Your task to perform on an android device: Open privacy settings Image 0: 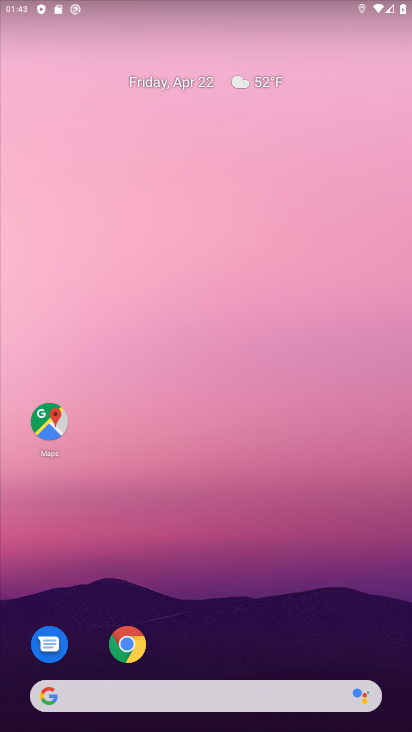
Step 0: click (131, 654)
Your task to perform on an android device: Open privacy settings Image 1: 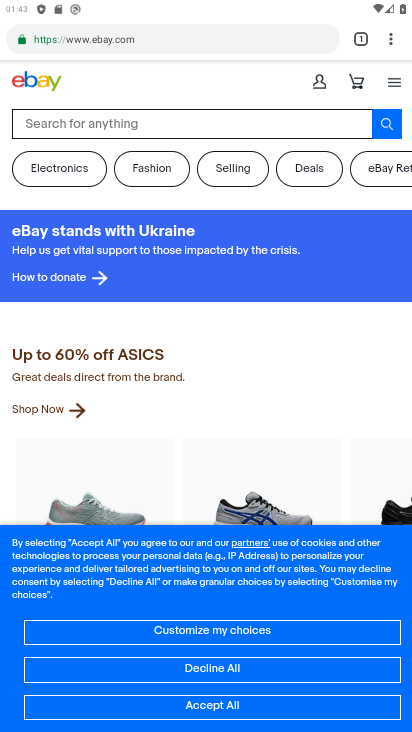
Step 1: click (390, 60)
Your task to perform on an android device: Open privacy settings Image 2: 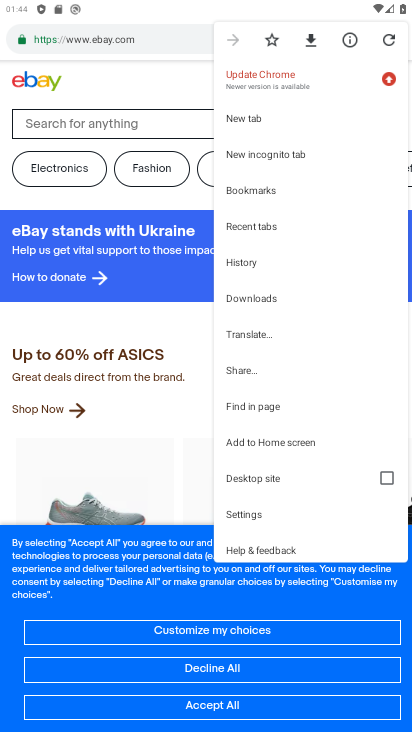
Step 2: click (298, 505)
Your task to perform on an android device: Open privacy settings Image 3: 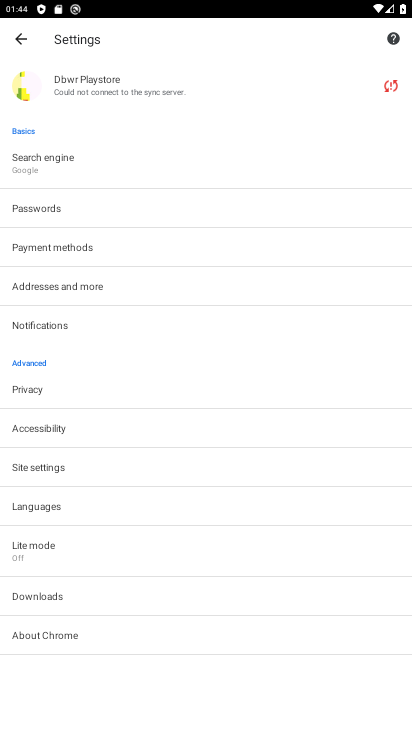
Step 3: click (163, 389)
Your task to perform on an android device: Open privacy settings Image 4: 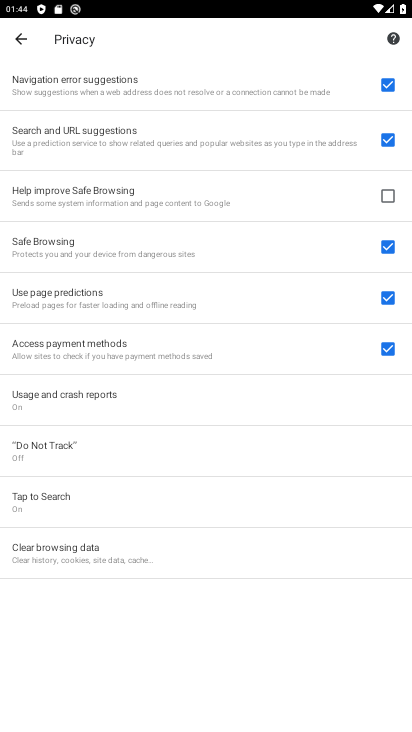
Step 4: task complete